Your task to perform on an android device: What's the weather going to be tomorrow? Image 0: 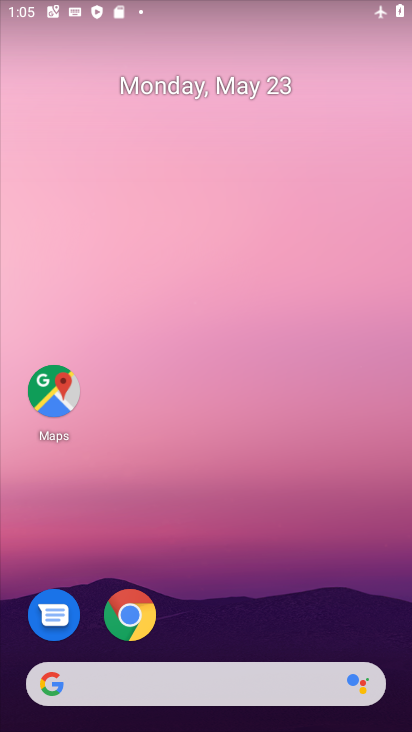
Step 0: drag from (211, 659) to (198, 2)
Your task to perform on an android device: What's the weather going to be tomorrow? Image 1: 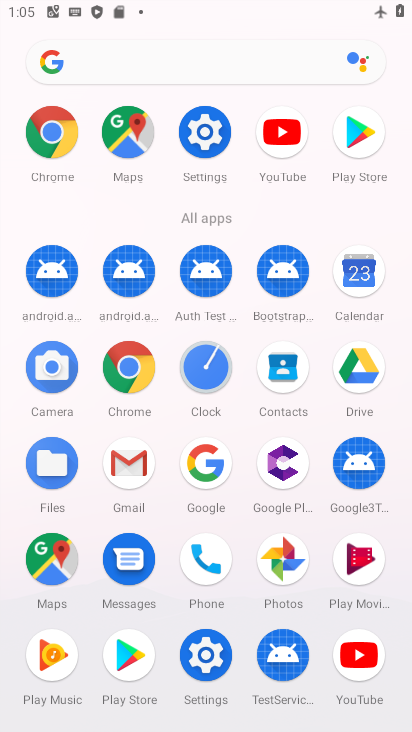
Step 1: click (200, 467)
Your task to perform on an android device: What's the weather going to be tomorrow? Image 2: 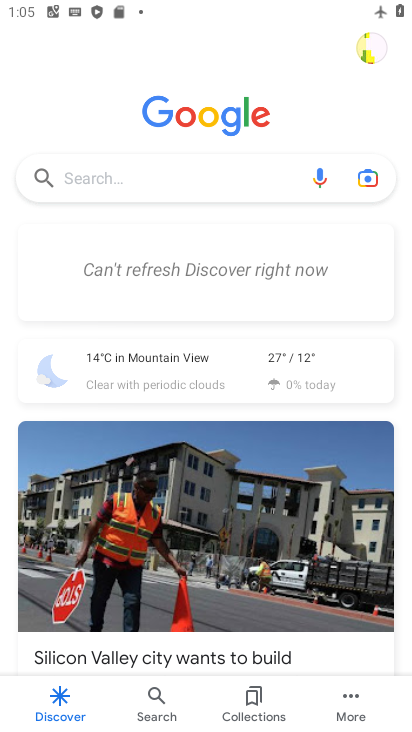
Step 2: click (148, 371)
Your task to perform on an android device: What's the weather going to be tomorrow? Image 3: 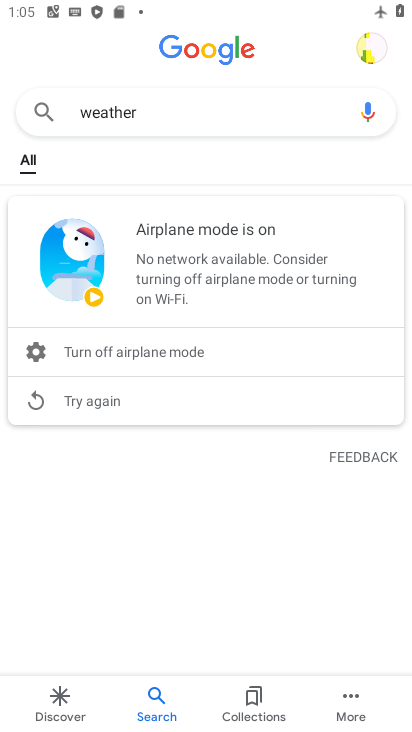
Step 3: task complete